Your task to perform on an android device: turn on bluetooth scan Image 0: 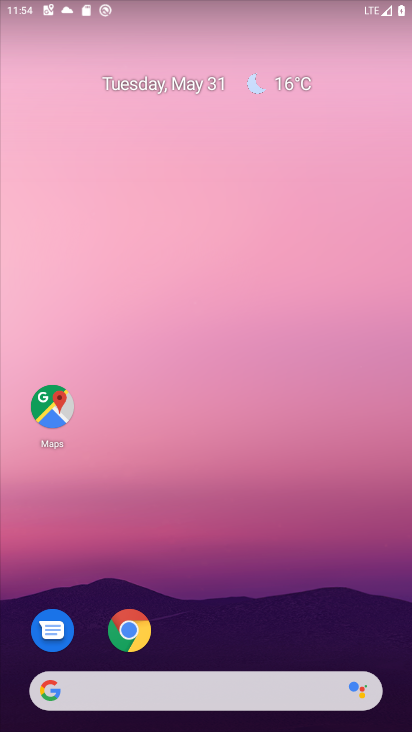
Step 0: drag from (215, 507) to (249, 87)
Your task to perform on an android device: turn on bluetooth scan Image 1: 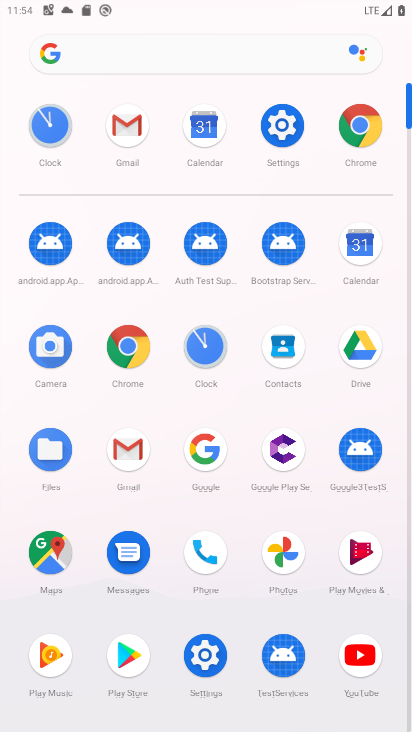
Step 1: click (291, 138)
Your task to perform on an android device: turn on bluetooth scan Image 2: 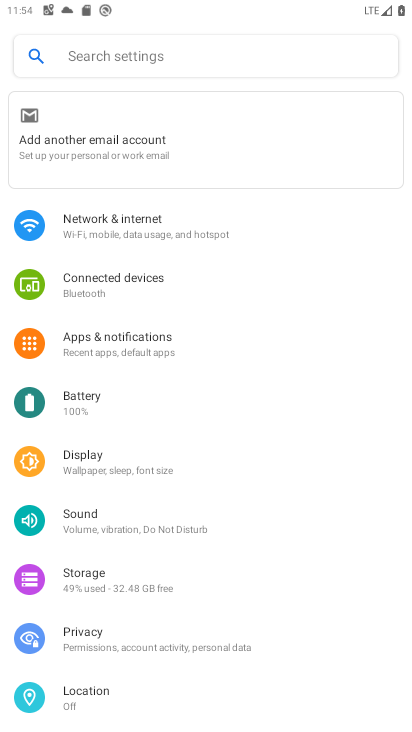
Step 2: click (101, 705)
Your task to perform on an android device: turn on bluetooth scan Image 3: 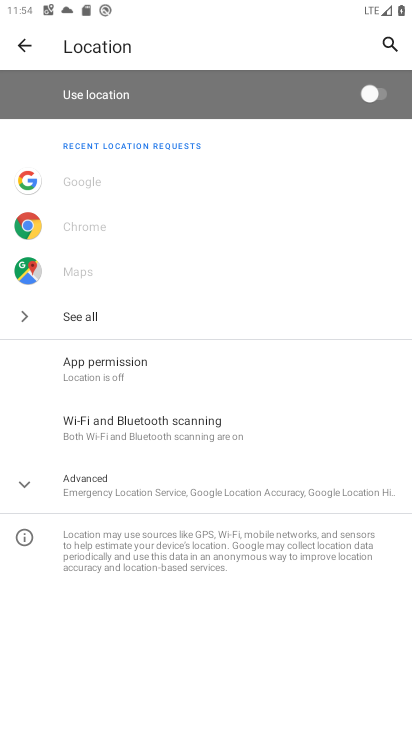
Step 3: click (159, 432)
Your task to perform on an android device: turn on bluetooth scan Image 4: 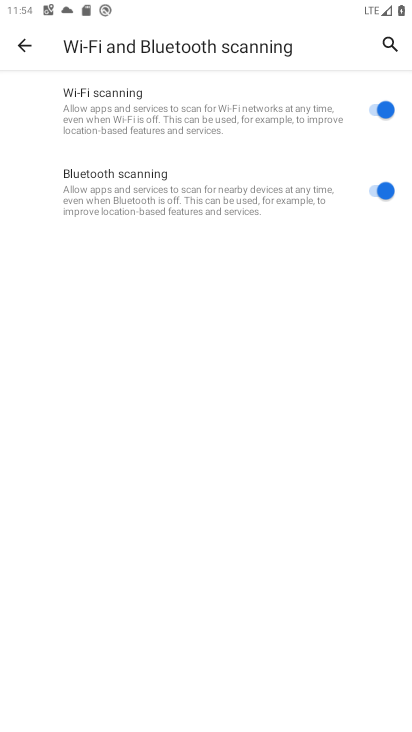
Step 4: task complete